Your task to perform on an android device: Clear the cart on amazon. Search for "acer nitro" on amazon, select the first entry, add it to the cart, then select checkout. Image 0: 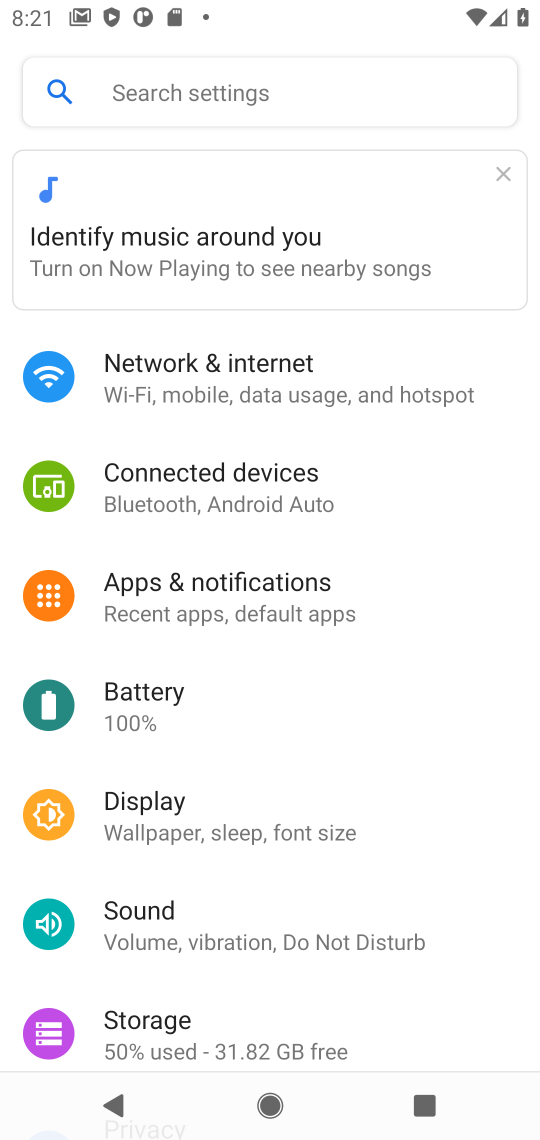
Step 0: press home button
Your task to perform on an android device: Clear the cart on amazon. Search for "acer nitro" on amazon, select the first entry, add it to the cart, then select checkout. Image 1: 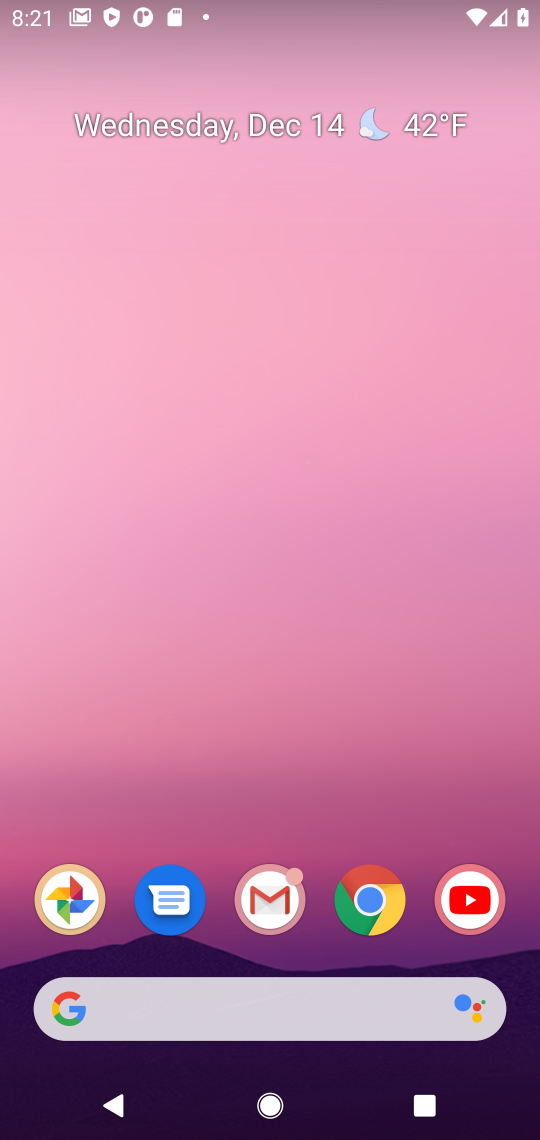
Step 1: click (377, 913)
Your task to perform on an android device: Clear the cart on amazon. Search for "acer nitro" on amazon, select the first entry, add it to the cart, then select checkout. Image 2: 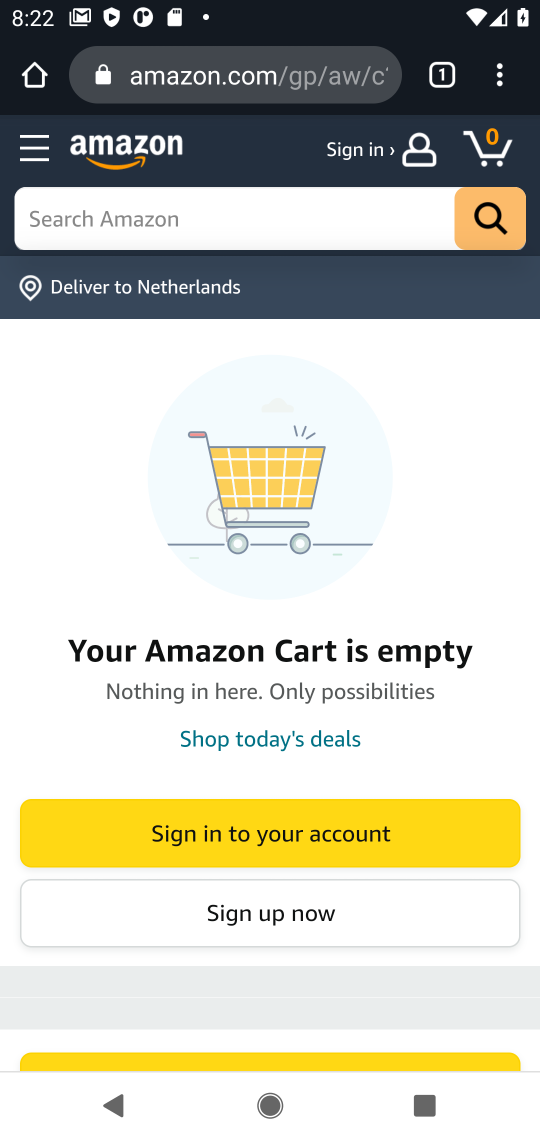
Step 2: click (87, 222)
Your task to perform on an android device: Clear the cart on amazon. Search for "acer nitro" on amazon, select the first entry, add it to the cart, then select checkout. Image 3: 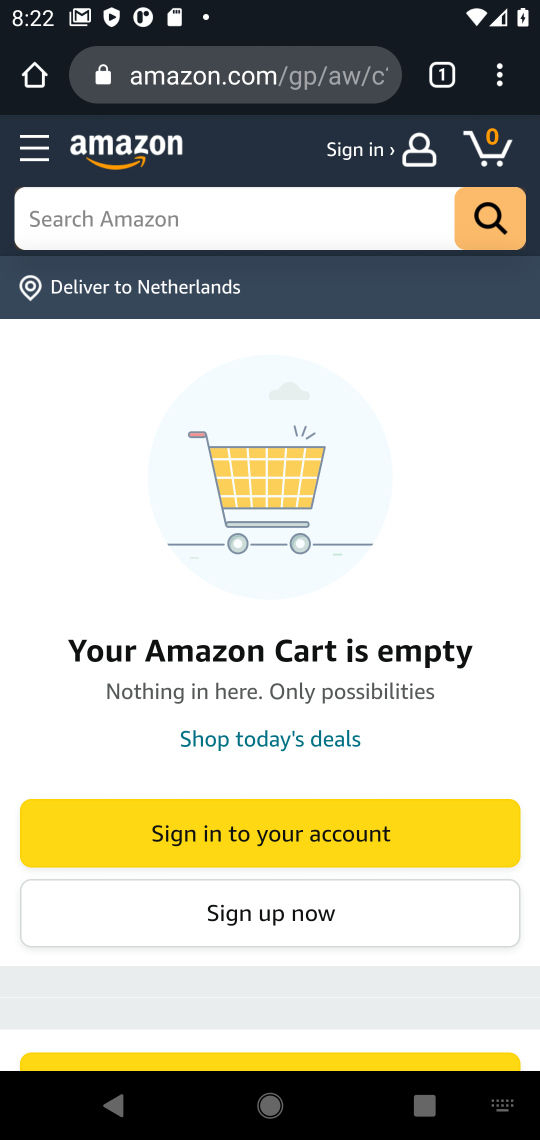
Step 3: type "acer nitro"
Your task to perform on an android device: Clear the cart on amazon. Search for "acer nitro" on amazon, select the first entry, add it to the cart, then select checkout. Image 4: 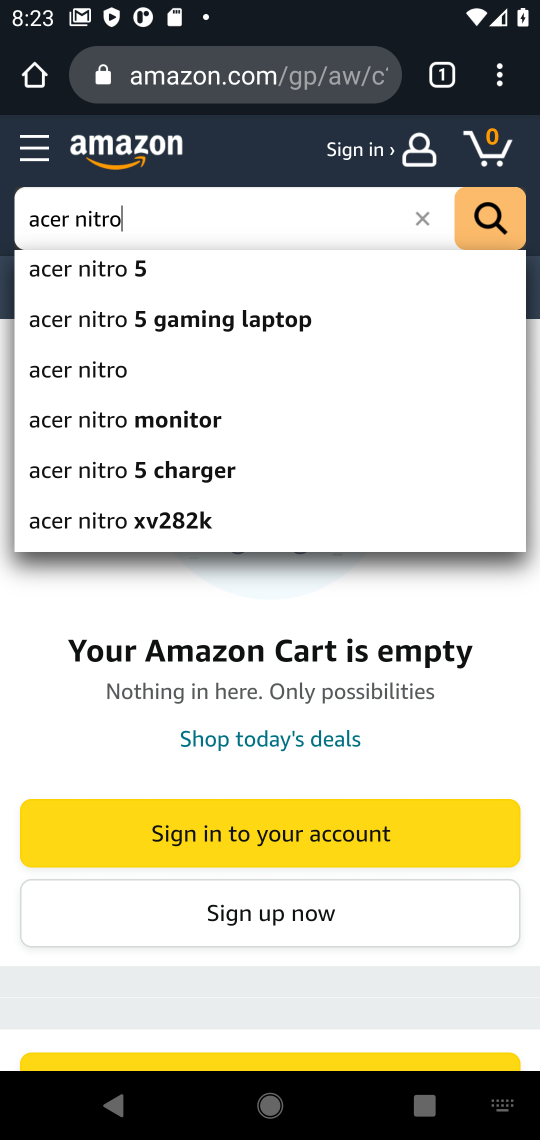
Step 4: click (73, 375)
Your task to perform on an android device: Clear the cart on amazon. Search for "acer nitro" on amazon, select the first entry, add it to the cart, then select checkout. Image 5: 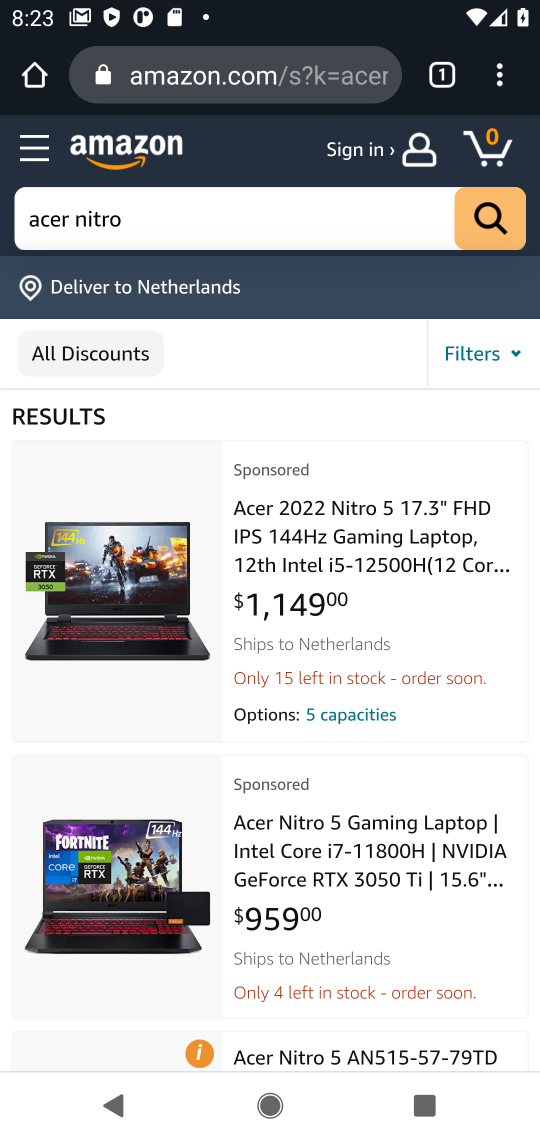
Step 5: click (298, 574)
Your task to perform on an android device: Clear the cart on amazon. Search for "acer nitro" on amazon, select the first entry, add it to the cart, then select checkout. Image 6: 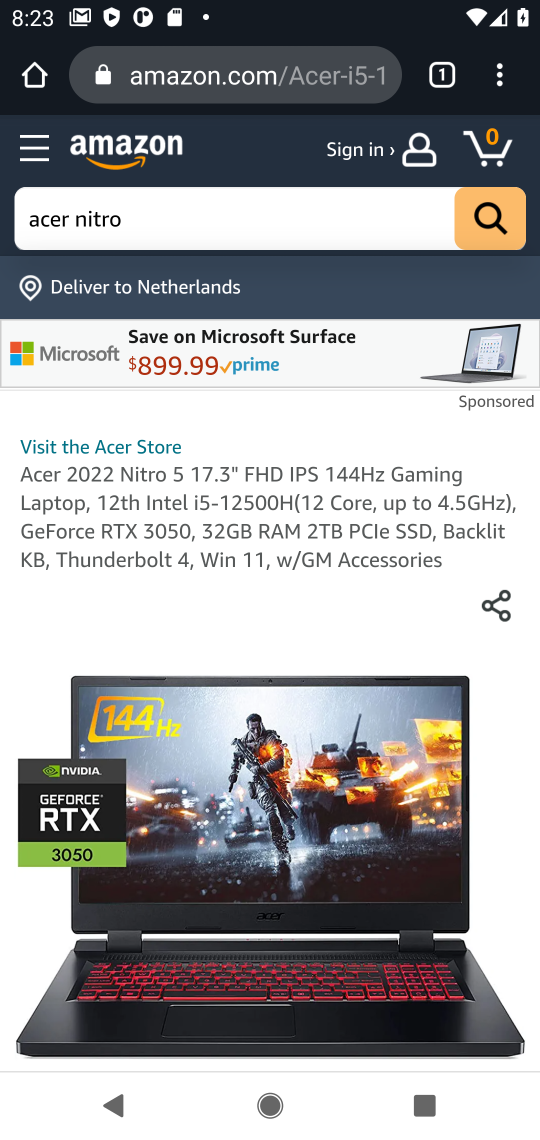
Step 6: drag from (247, 854) to (234, 367)
Your task to perform on an android device: Clear the cart on amazon. Search for "acer nitro" on amazon, select the first entry, add it to the cart, then select checkout. Image 7: 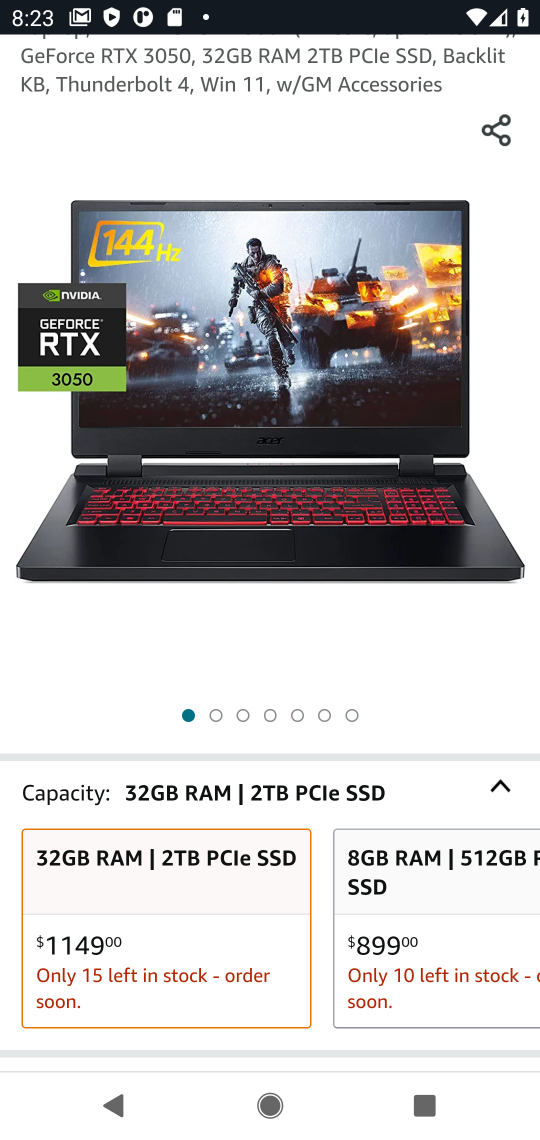
Step 7: drag from (240, 825) to (237, 396)
Your task to perform on an android device: Clear the cart on amazon. Search for "acer nitro" on amazon, select the first entry, add it to the cart, then select checkout. Image 8: 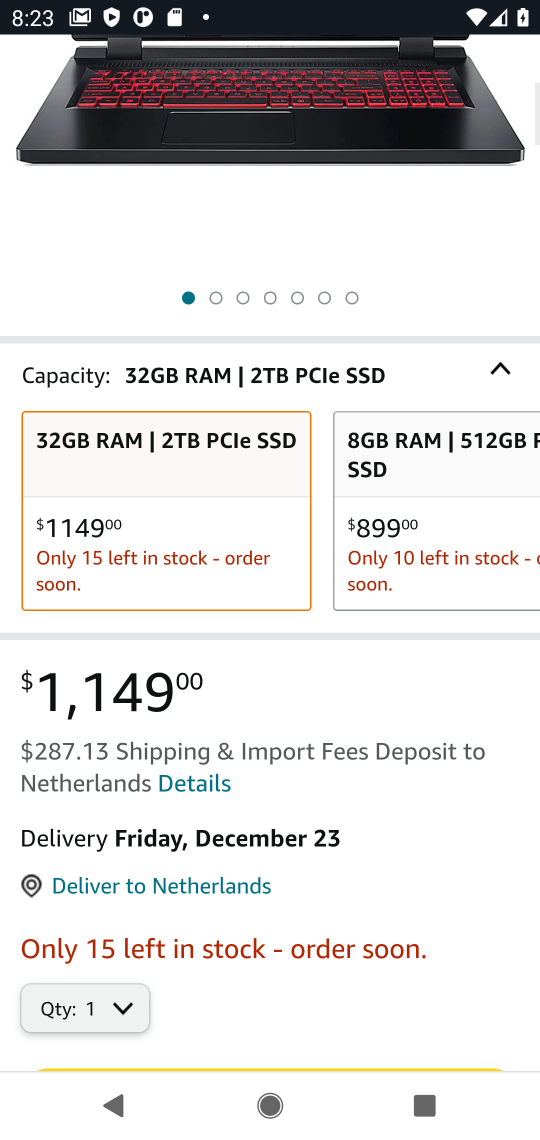
Step 8: drag from (274, 929) to (291, 386)
Your task to perform on an android device: Clear the cart on amazon. Search for "acer nitro" on amazon, select the first entry, add it to the cart, then select checkout. Image 9: 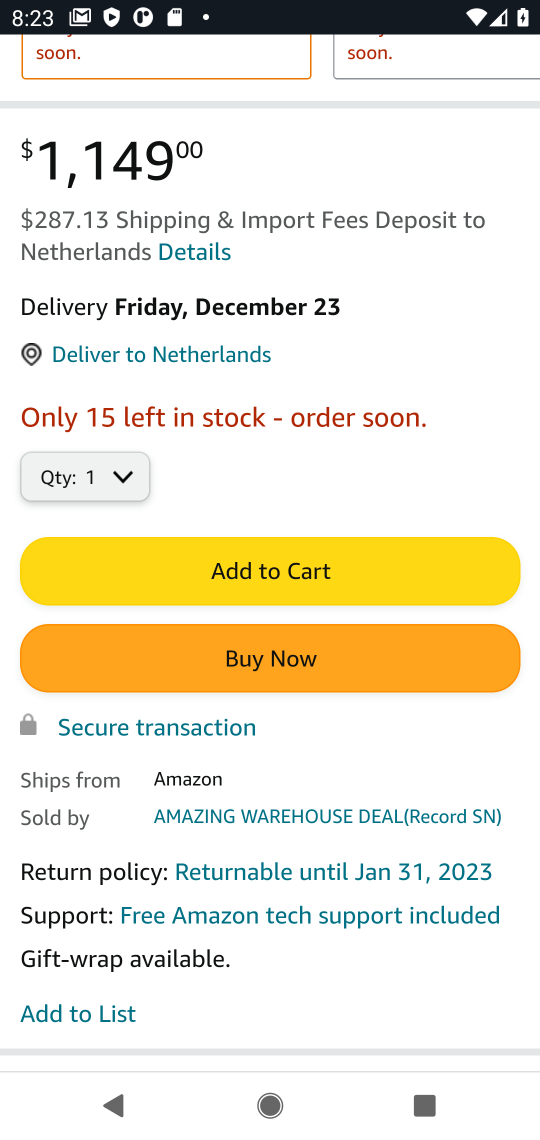
Step 9: click (276, 568)
Your task to perform on an android device: Clear the cart on amazon. Search for "acer nitro" on amazon, select the first entry, add it to the cart, then select checkout. Image 10: 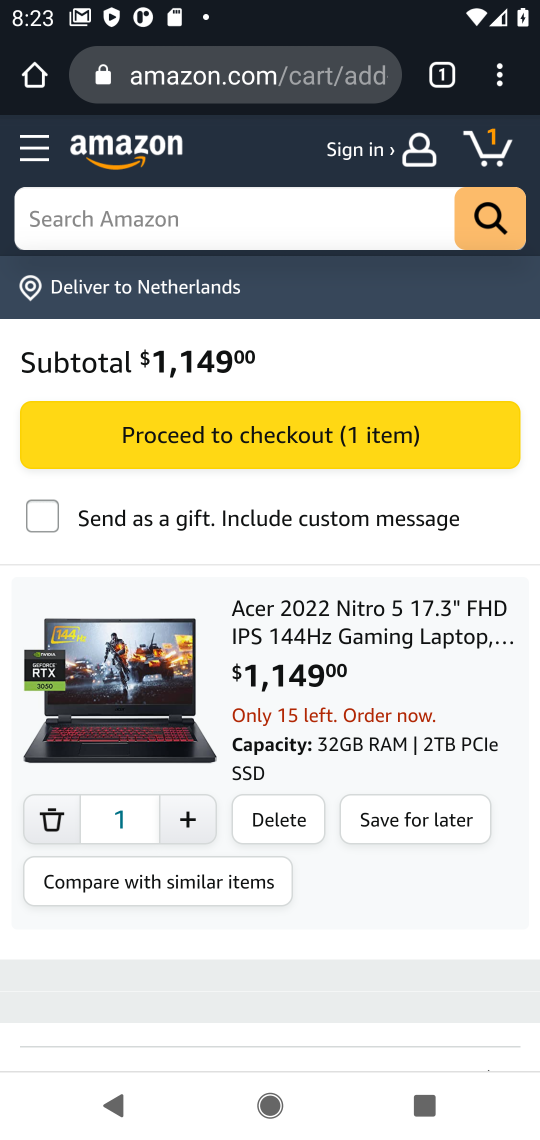
Step 10: click (228, 426)
Your task to perform on an android device: Clear the cart on amazon. Search for "acer nitro" on amazon, select the first entry, add it to the cart, then select checkout. Image 11: 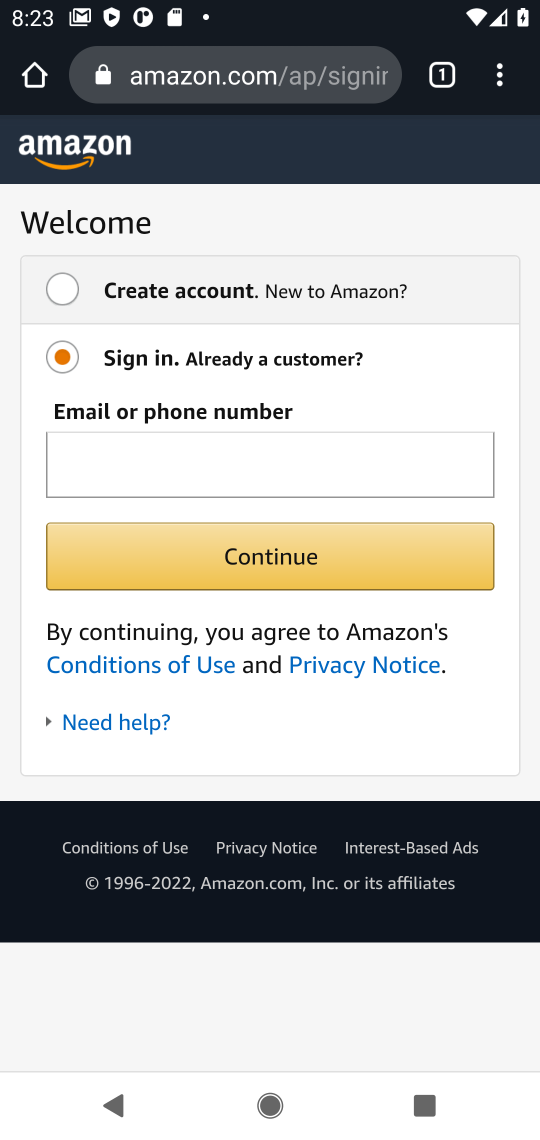
Step 11: task complete